Your task to perform on an android device: Open the phone app and click the voicemail tab. Image 0: 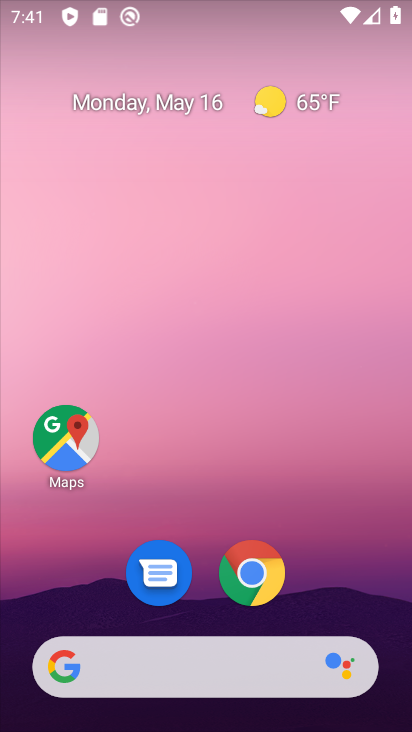
Step 0: drag from (318, 597) to (316, 33)
Your task to perform on an android device: Open the phone app and click the voicemail tab. Image 1: 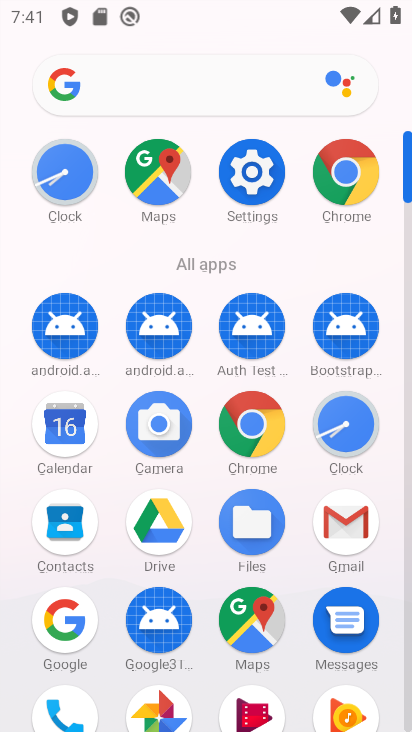
Step 1: drag from (111, 580) to (183, 236)
Your task to perform on an android device: Open the phone app and click the voicemail tab. Image 2: 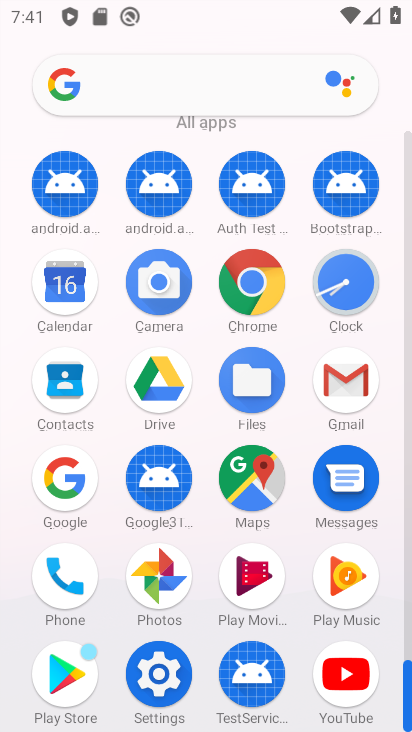
Step 2: click (57, 581)
Your task to perform on an android device: Open the phone app and click the voicemail tab. Image 3: 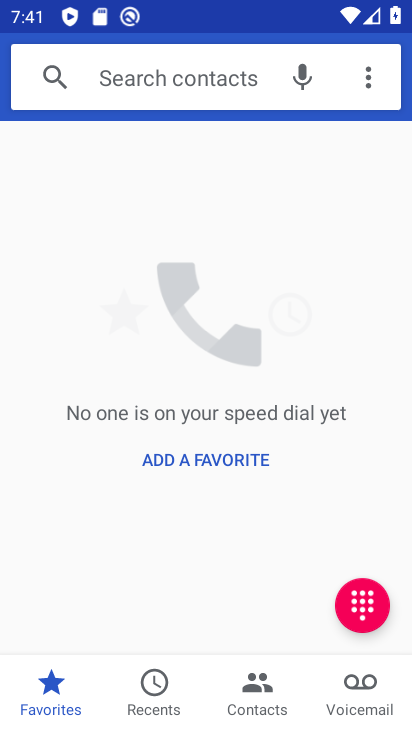
Step 3: click (369, 693)
Your task to perform on an android device: Open the phone app and click the voicemail tab. Image 4: 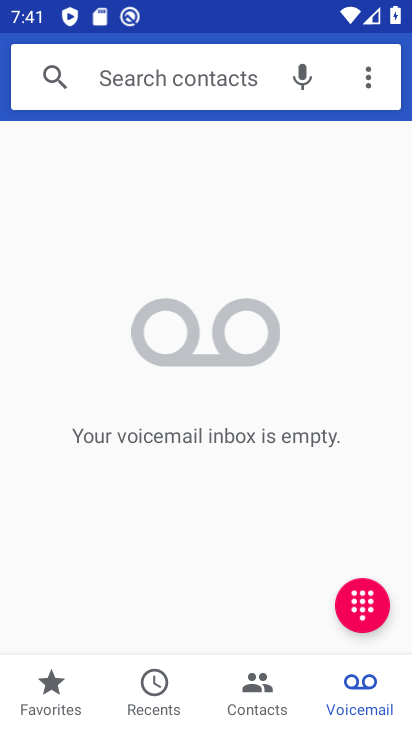
Step 4: task complete